Your task to perform on an android device: clear history in the chrome app Image 0: 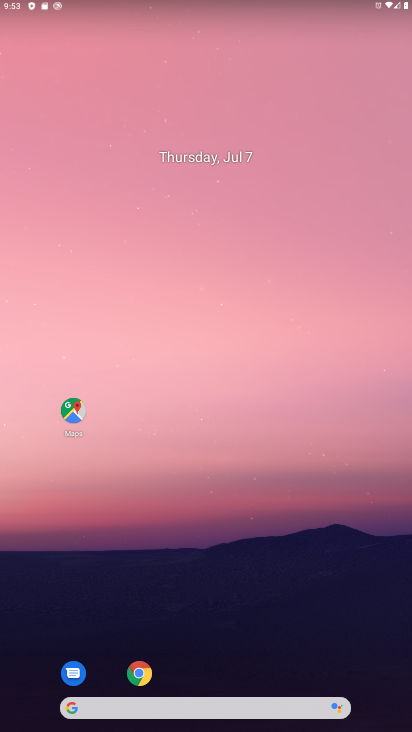
Step 0: click (181, 696)
Your task to perform on an android device: clear history in the chrome app Image 1: 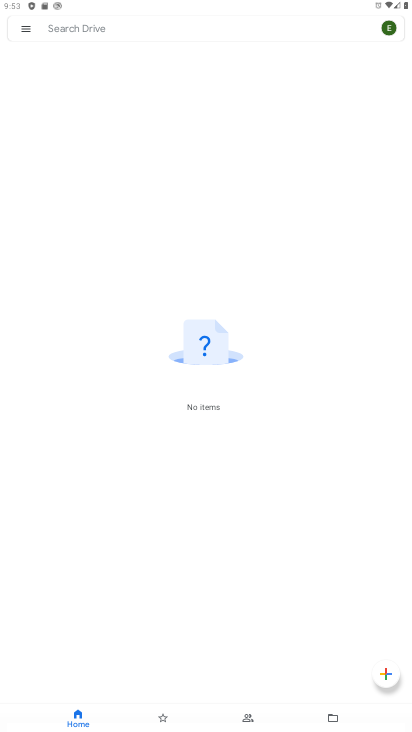
Step 1: press home button
Your task to perform on an android device: clear history in the chrome app Image 2: 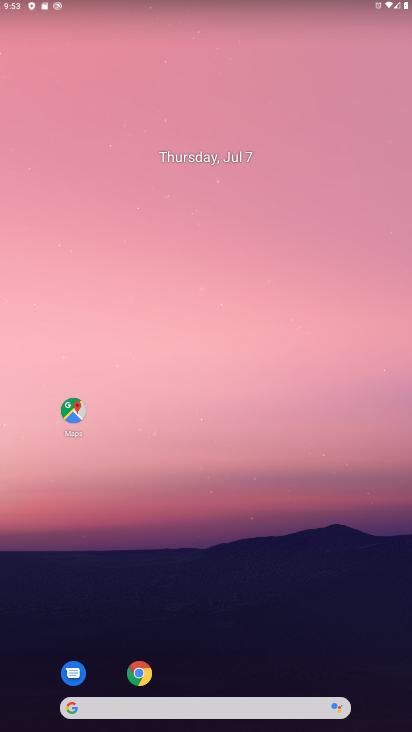
Step 2: click (145, 682)
Your task to perform on an android device: clear history in the chrome app Image 3: 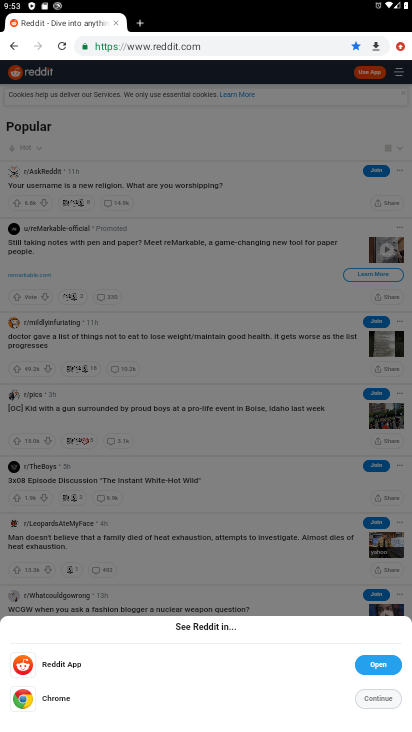
Step 3: click (402, 52)
Your task to perform on an android device: clear history in the chrome app Image 4: 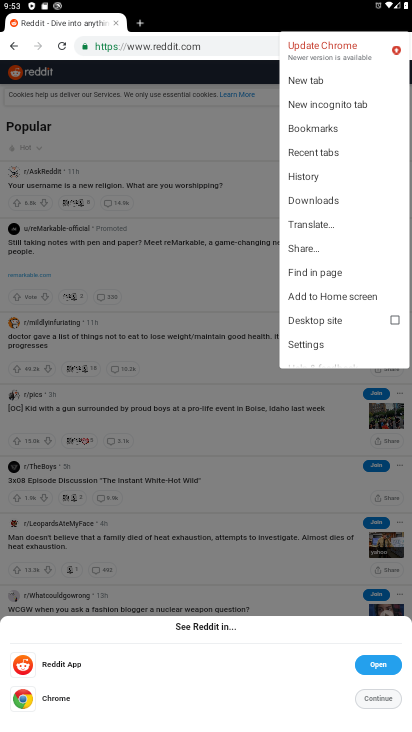
Step 4: click (308, 174)
Your task to perform on an android device: clear history in the chrome app Image 5: 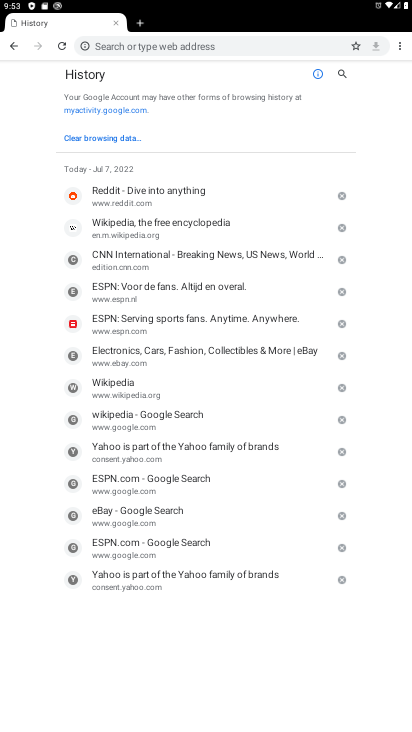
Step 5: click (120, 133)
Your task to perform on an android device: clear history in the chrome app Image 6: 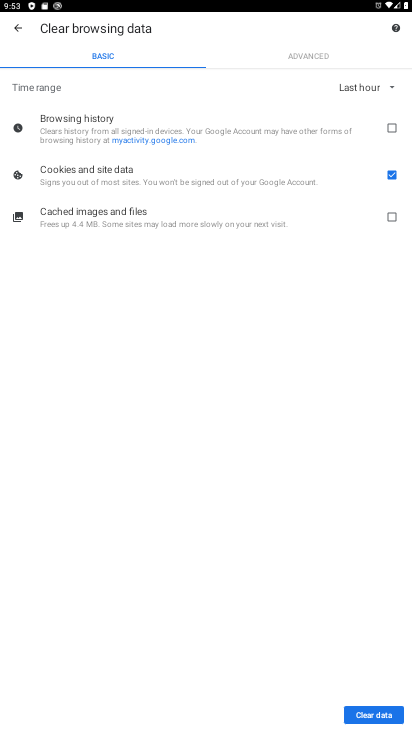
Step 6: click (397, 214)
Your task to perform on an android device: clear history in the chrome app Image 7: 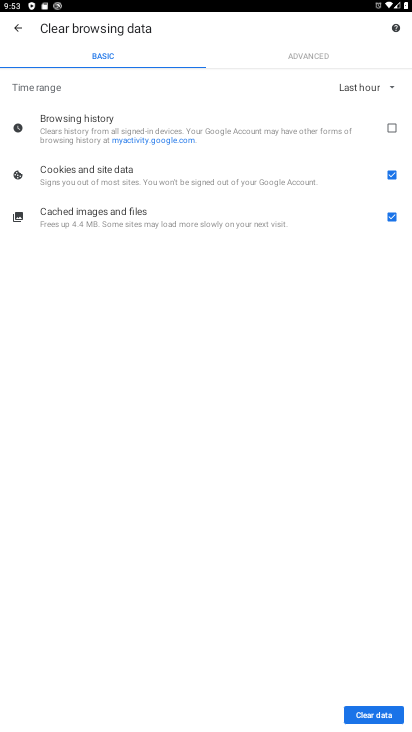
Step 7: click (386, 123)
Your task to perform on an android device: clear history in the chrome app Image 8: 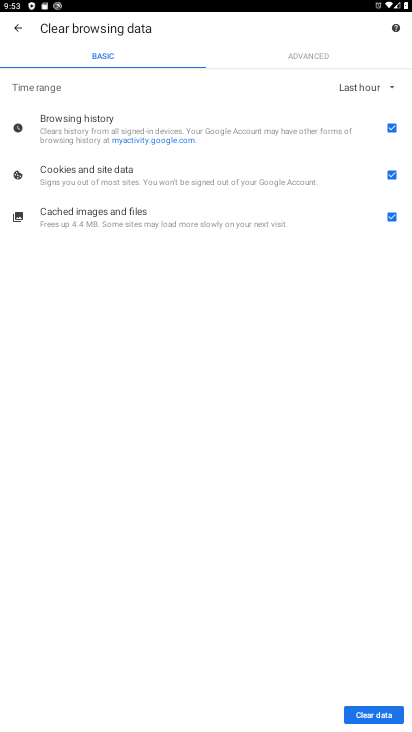
Step 8: click (372, 710)
Your task to perform on an android device: clear history in the chrome app Image 9: 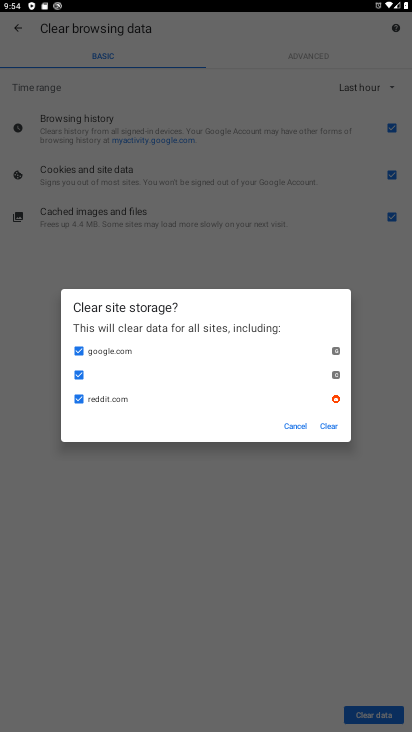
Step 9: click (331, 429)
Your task to perform on an android device: clear history in the chrome app Image 10: 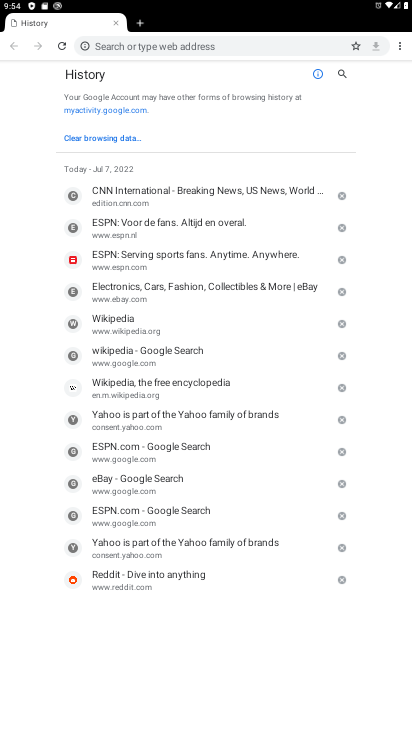
Step 10: task complete